Your task to perform on an android device: Set the phone to "Do not disturb". Image 0: 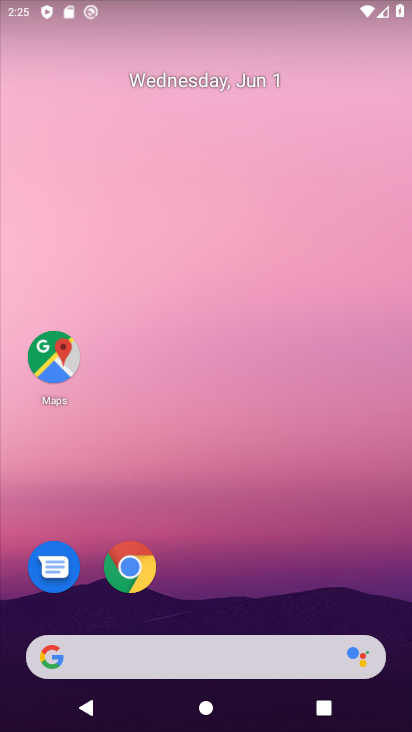
Step 0: drag from (165, 621) to (264, 121)
Your task to perform on an android device: Set the phone to "Do not disturb". Image 1: 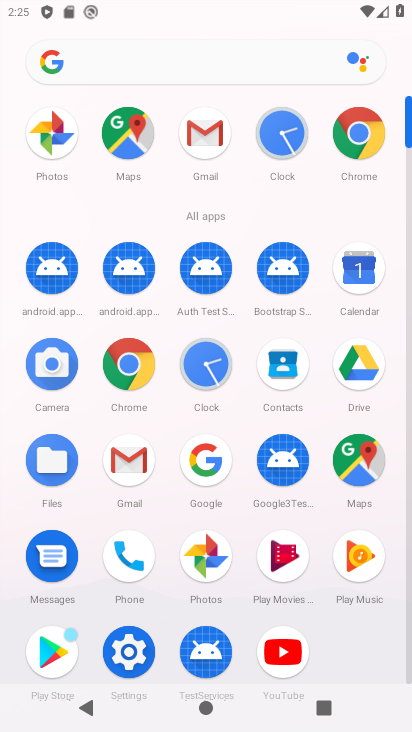
Step 1: drag from (144, 550) to (207, 317)
Your task to perform on an android device: Set the phone to "Do not disturb". Image 2: 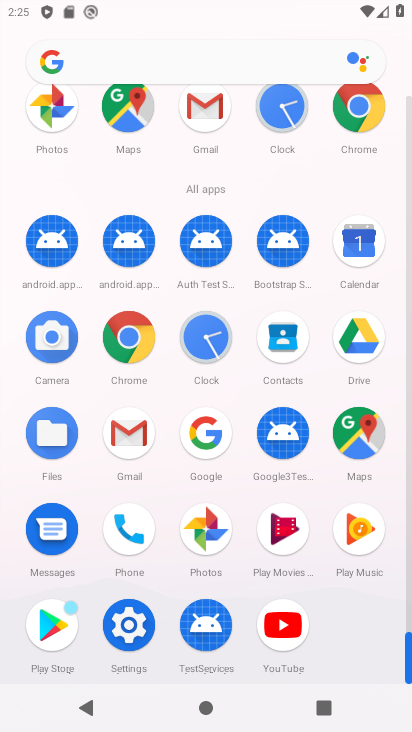
Step 2: click (114, 637)
Your task to perform on an android device: Set the phone to "Do not disturb". Image 3: 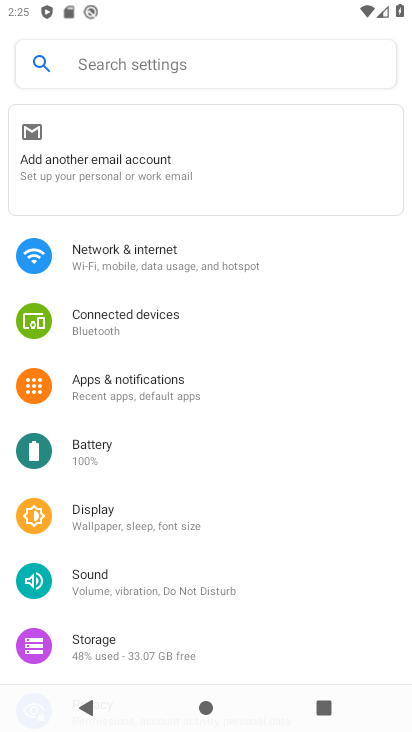
Step 3: click (193, 388)
Your task to perform on an android device: Set the phone to "Do not disturb". Image 4: 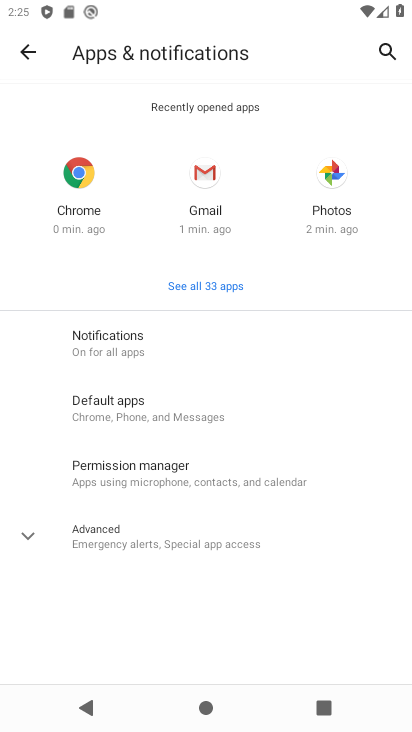
Step 4: click (172, 359)
Your task to perform on an android device: Set the phone to "Do not disturb". Image 5: 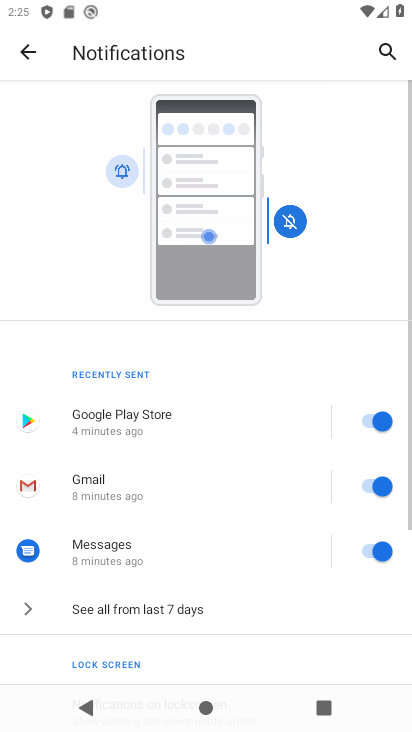
Step 5: drag from (190, 592) to (270, 190)
Your task to perform on an android device: Set the phone to "Do not disturb". Image 6: 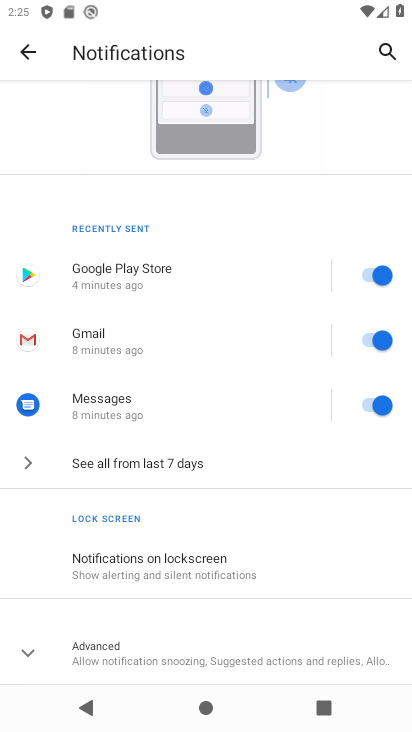
Step 6: drag from (157, 555) to (229, 209)
Your task to perform on an android device: Set the phone to "Do not disturb". Image 7: 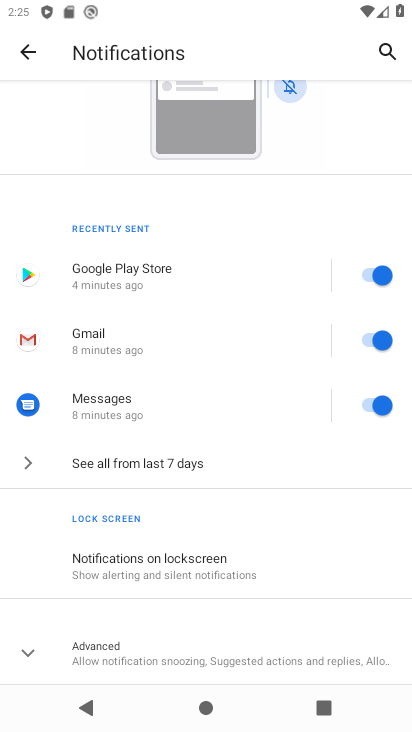
Step 7: click (184, 656)
Your task to perform on an android device: Set the phone to "Do not disturb". Image 8: 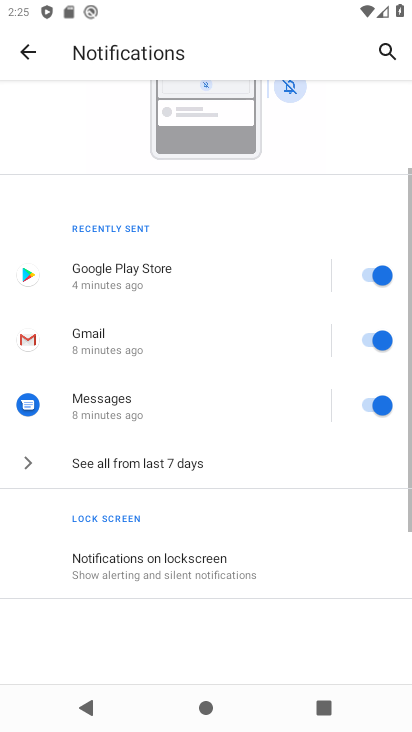
Step 8: drag from (184, 656) to (293, 119)
Your task to perform on an android device: Set the phone to "Do not disturb". Image 9: 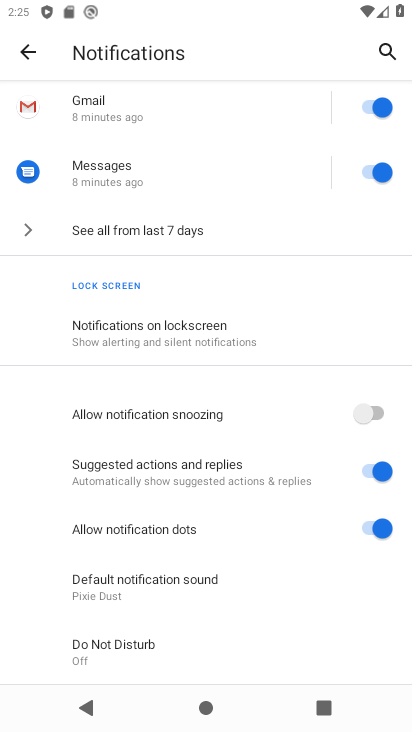
Step 9: click (277, 655)
Your task to perform on an android device: Set the phone to "Do not disturb". Image 10: 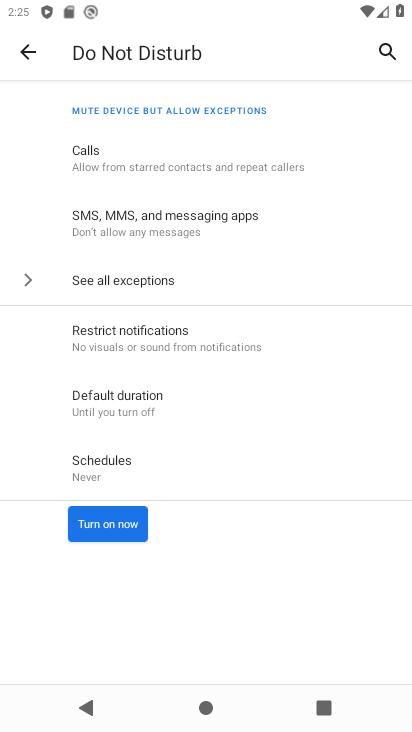
Step 10: click (128, 522)
Your task to perform on an android device: Set the phone to "Do not disturb". Image 11: 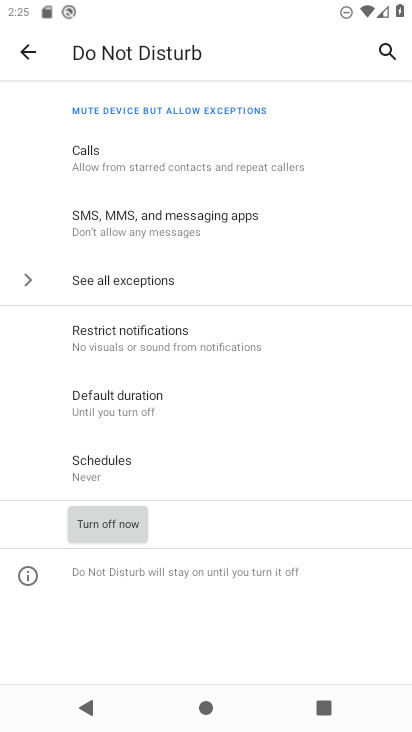
Step 11: task complete